Your task to perform on an android device: Go to Amazon Image 0: 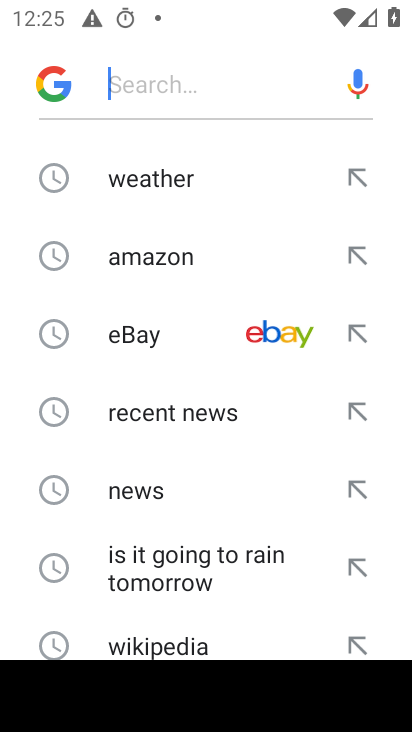
Step 0: click (170, 257)
Your task to perform on an android device: Go to Amazon Image 1: 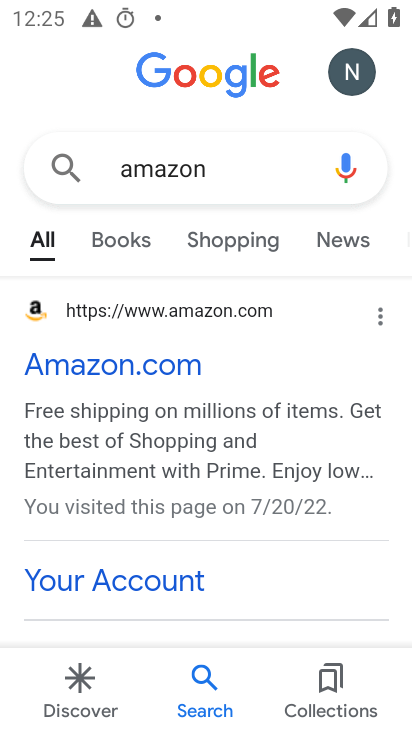
Step 1: task complete